Your task to perform on an android device: Set the phone to "Do not disturb". Image 0: 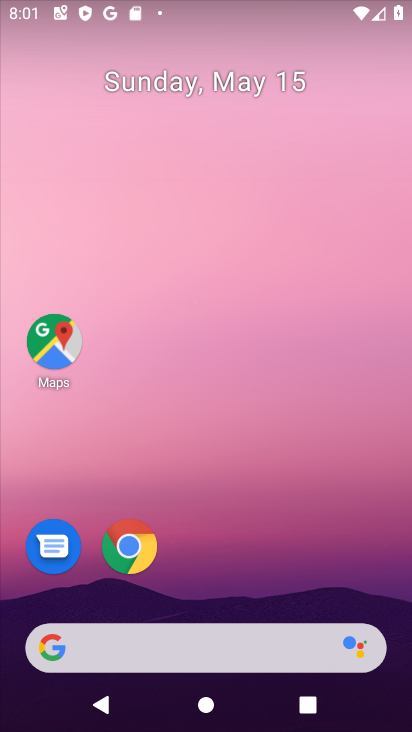
Step 0: drag from (213, 498) to (205, 56)
Your task to perform on an android device: Set the phone to "Do not disturb". Image 1: 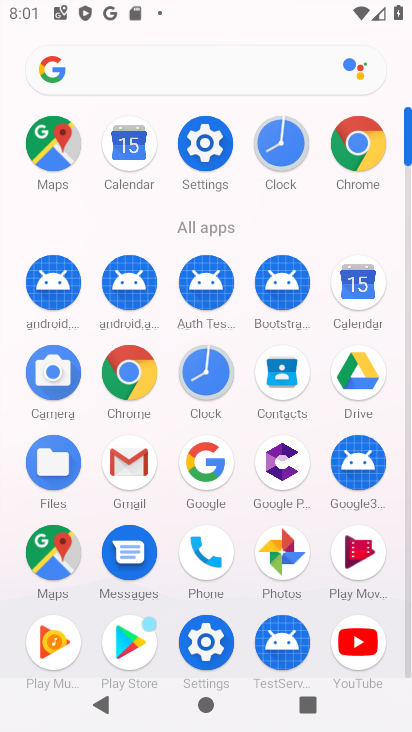
Step 1: click (202, 134)
Your task to perform on an android device: Set the phone to "Do not disturb". Image 2: 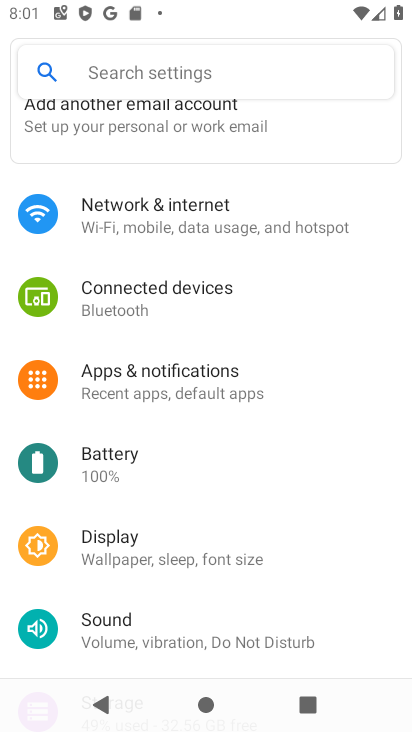
Step 2: click (167, 625)
Your task to perform on an android device: Set the phone to "Do not disturb". Image 3: 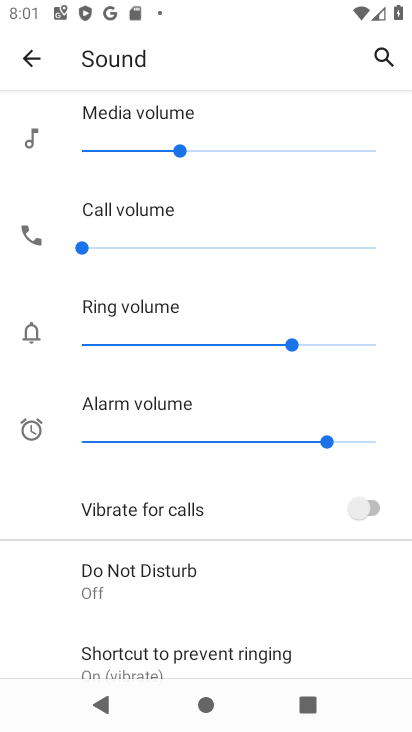
Step 3: click (169, 581)
Your task to perform on an android device: Set the phone to "Do not disturb". Image 4: 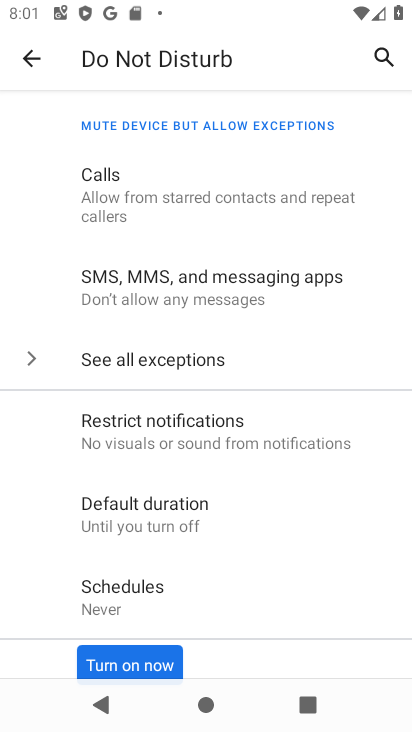
Step 4: click (144, 659)
Your task to perform on an android device: Set the phone to "Do not disturb". Image 5: 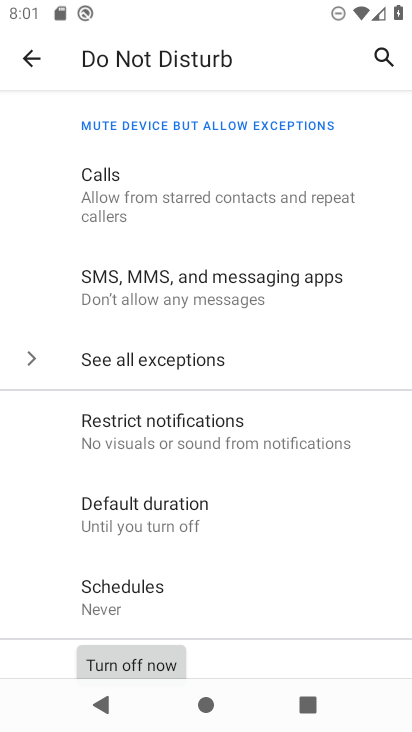
Step 5: task complete